Your task to perform on an android device: Open eBay Image 0: 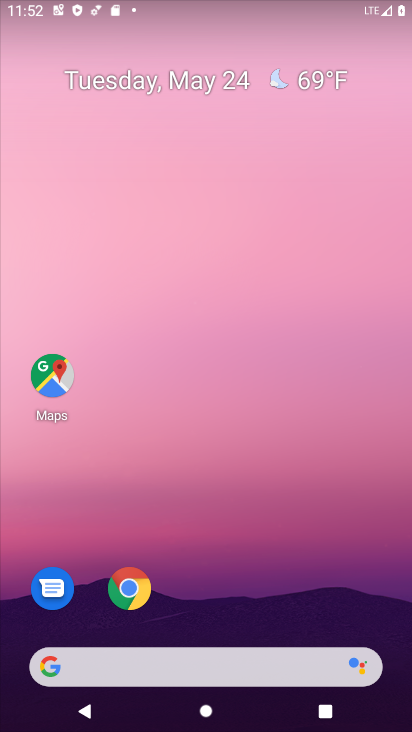
Step 0: press home button
Your task to perform on an android device: Open eBay Image 1: 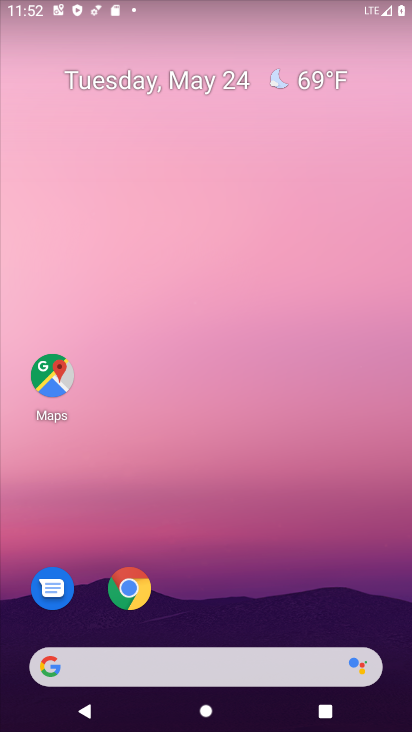
Step 1: click (129, 586)
Your task to perform on an android device: Open eBay Image 2: 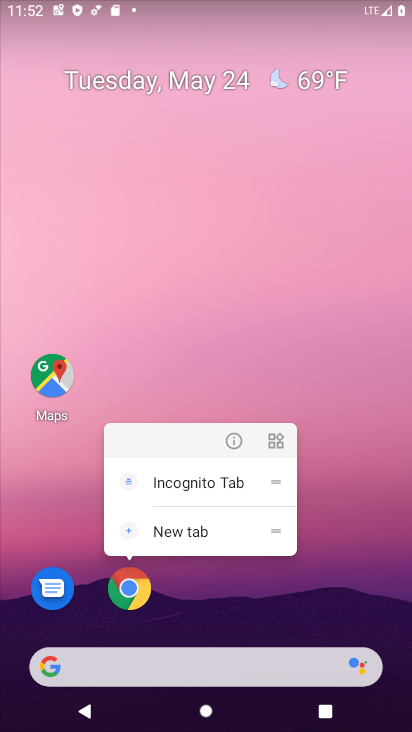
Step 2: click (123, 581)
Your task to perform on an android device: Open eBay Image 3: 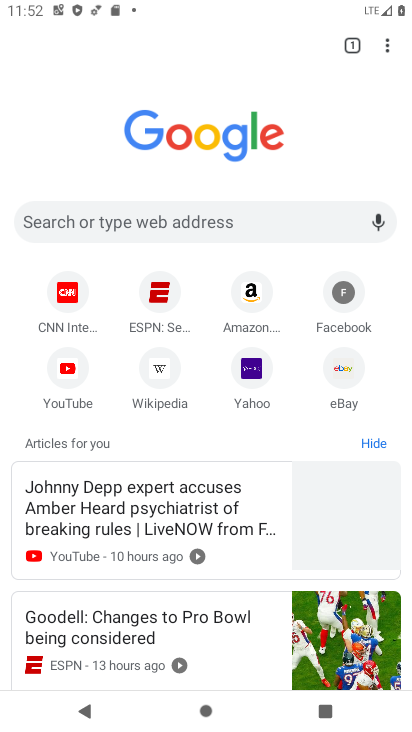
Step 3: click (343, 363)
Your task to perform on an android device: Open eBay Image 4: 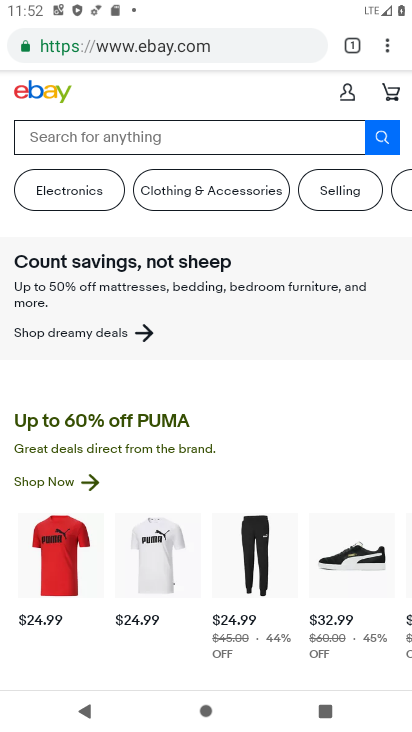
Step 4: task complete